Your task to perform on an android device: set an alarm Image 0: 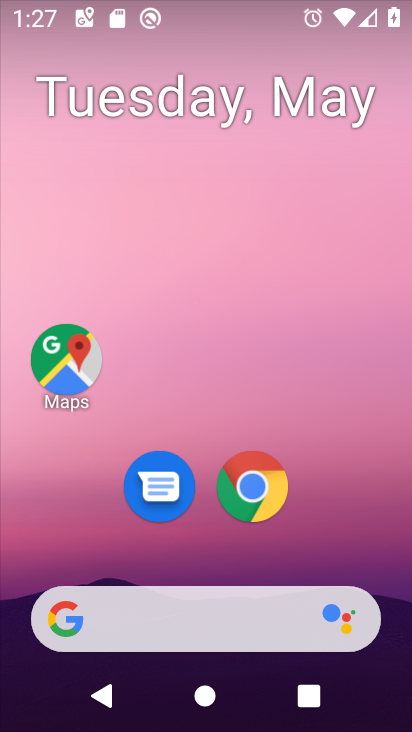
Step 0: drag from (113, 496) to (308, 169)
Your task to perform on an android device: set an alarm Image 1: 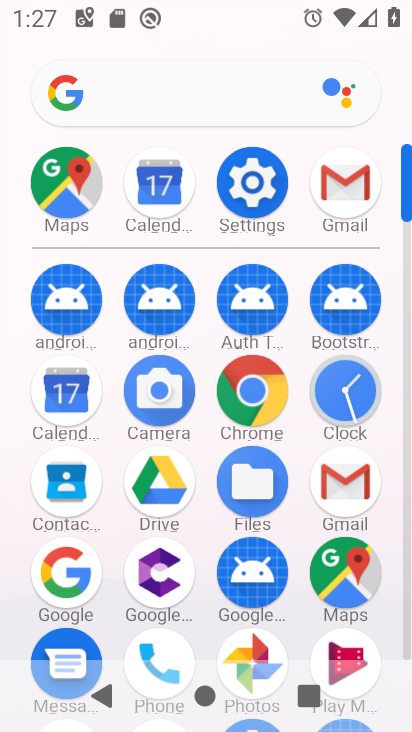
Step 1: click (329, 381)
Your task to perform on an android device: set an alarm Image 2: 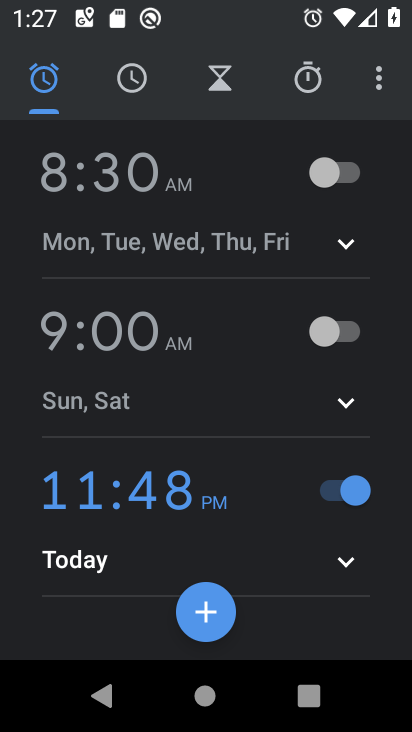
Step 2: click (207, 614)
Your task to perform on an android device: set an alarm Image 3: 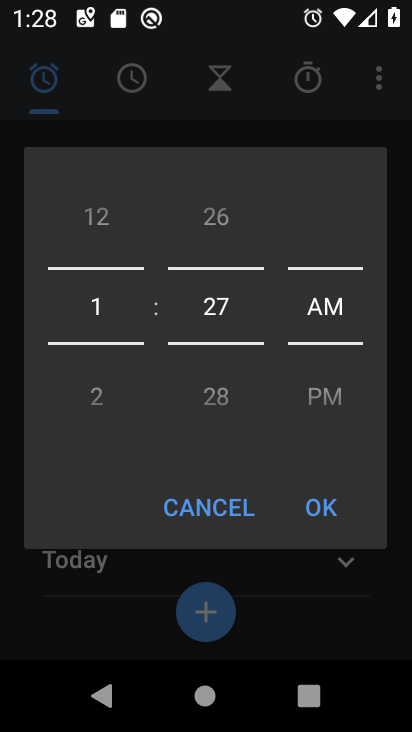
Step 3: click (317, 504)
Your task to perform on an android device: set an alarm Image 4: 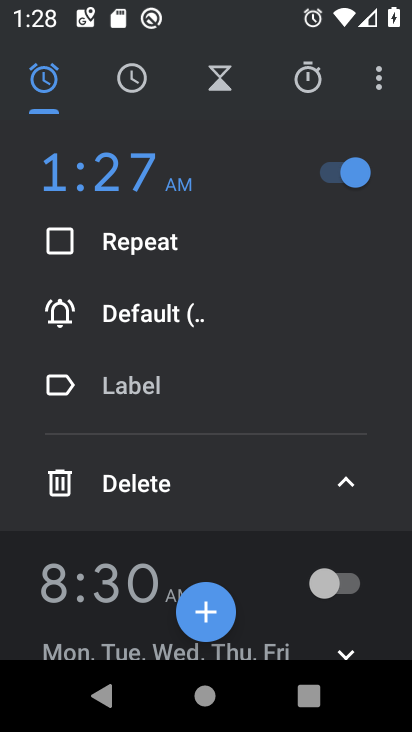
Step 4: task complete